Your task to perform on an android device: Go to Google maps Image 0: 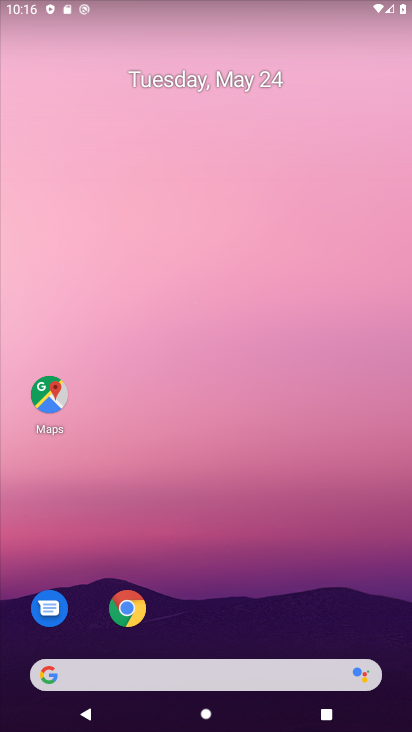
Step 0: click (48, 394)
Your task to perform on an android device: Go to Google maps Image 1: 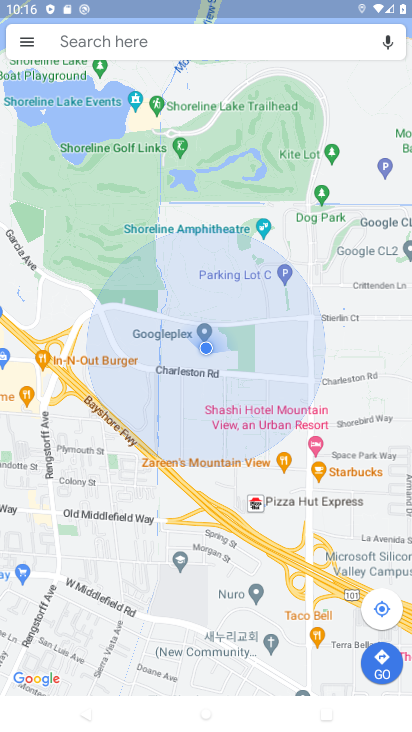
Step 1: task complete